Your task to perform on an android device: Open Android settings Image 0: 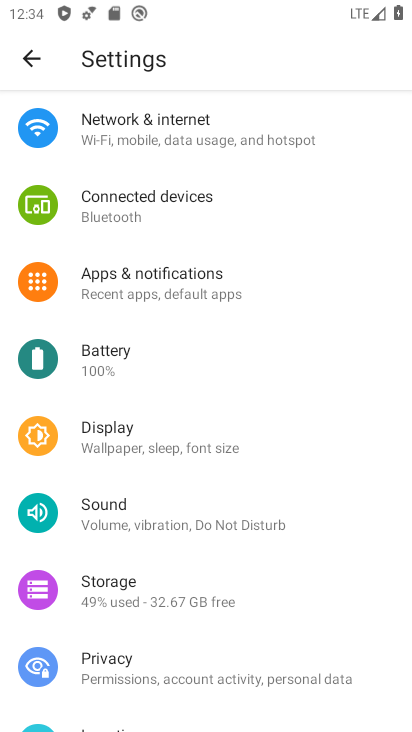
Step 0: task complete